Your task to perform on an android device: When is my next meeting? Image 0: 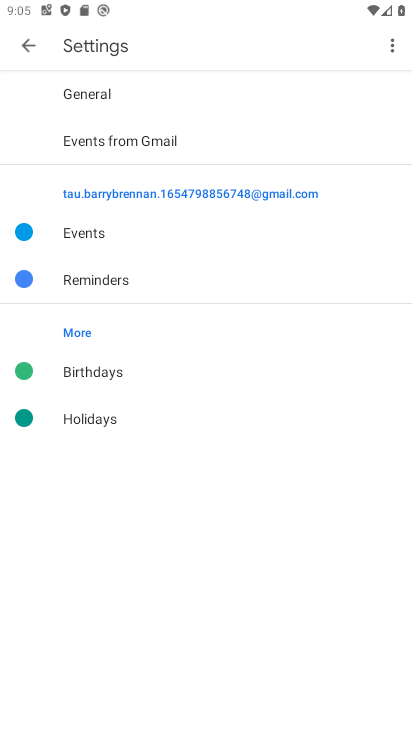
Step 0: press home button
Your task to perform on an android device: When is my next meeting? Image 1: 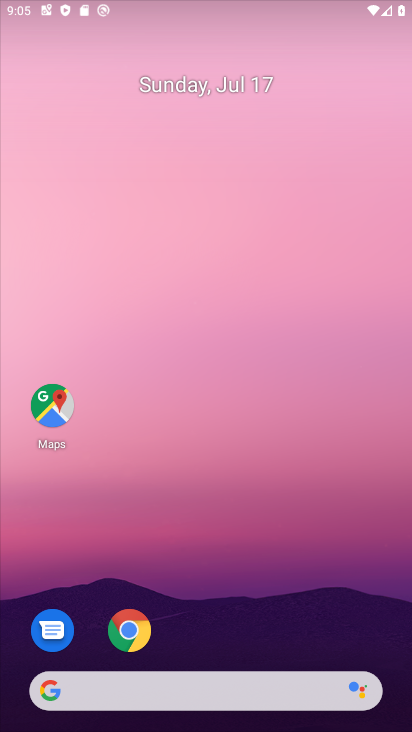
Step 1: drag from (255, 705) to (142, 110)
Your task to perform on an android device: When is my next meeting? Image 2: 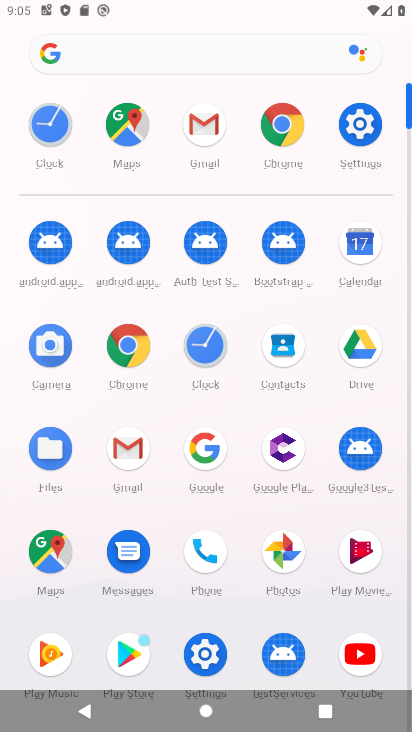
Step 2: click (365, 247)
Your task to perform on an android device: When is my next meeting? Image 3: 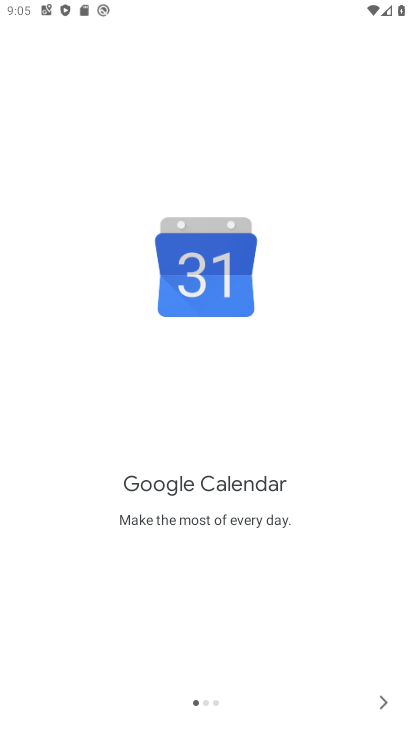
Step 3: click (390, 700)
Your task to perform on an android device: When is my next meeting? Image 4: 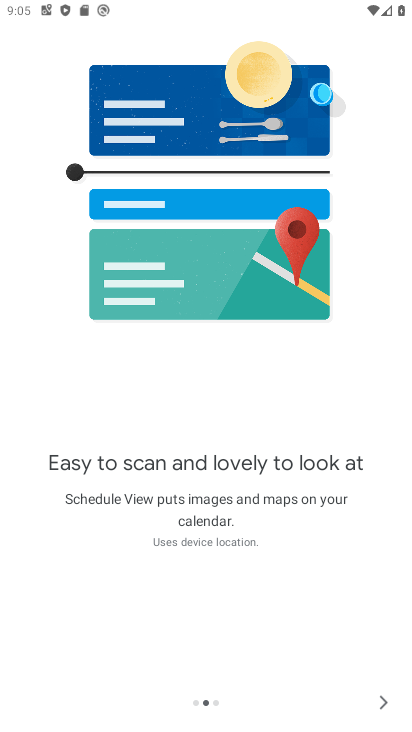
Step 4: click (384, 701)
Your task to perform on an android device: When is my next meeting? Image 5: 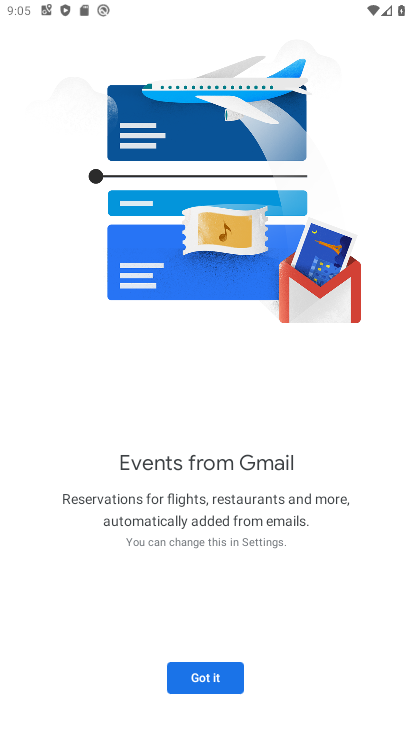
Step 5: click (196, 674)
Your task to perform on an android device: When is my next meeting? Image 6: 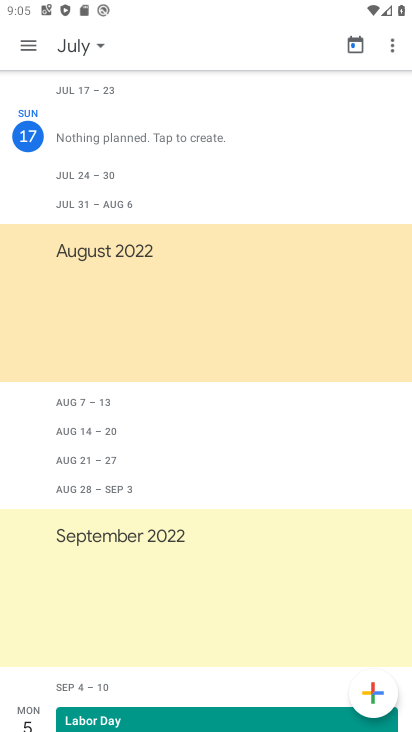
Step 6: click (108, 41)
Your task to perform on an android device: When is my next meeting? Image 7: 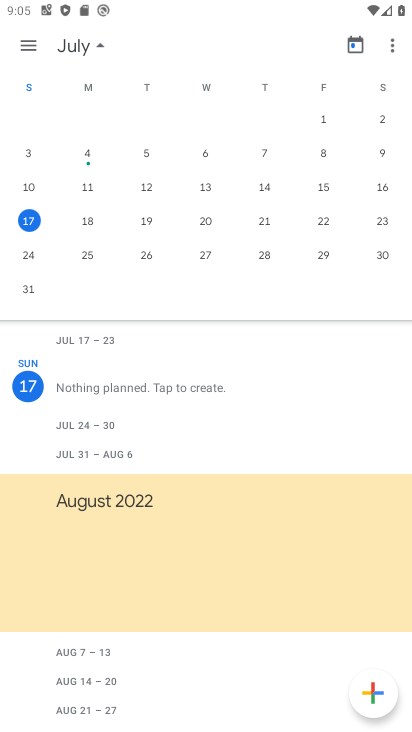
Step 7: click (92, 219)
Your task to perform on an android device: When is my next meeting? Image 8: 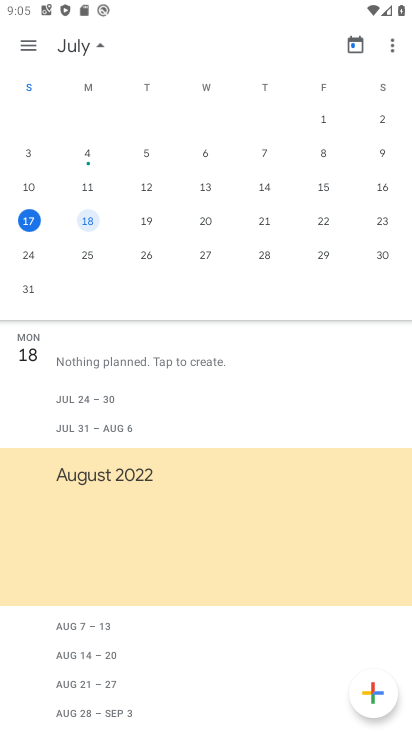
Step 8: task complete